Your task to perform on an android device: Empty the shopping cart on newegg. Add "logitech g502" to the cart on newegg Image 0: 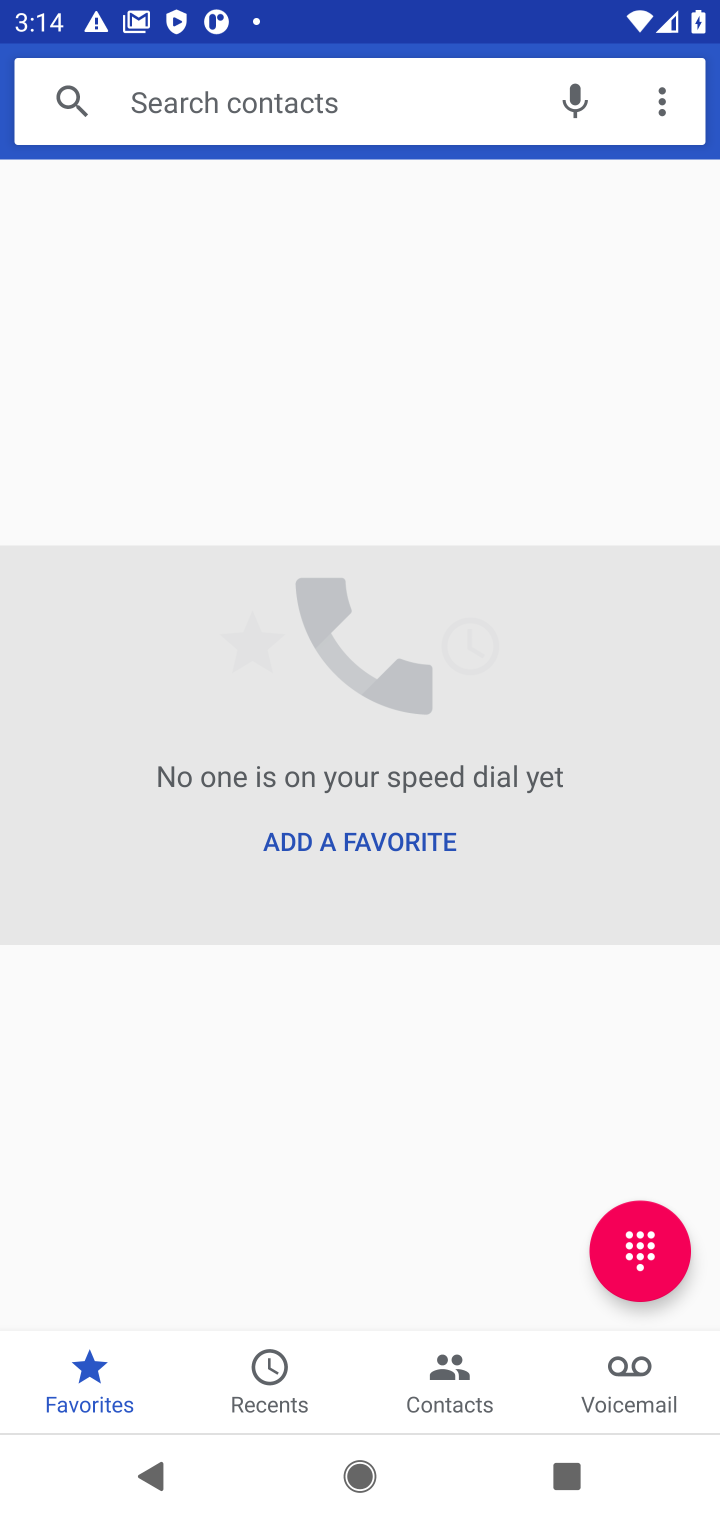
Step 0: press home button
Your task to perform on an android device: Empty the shopping cart on newegg. Add "logitech g502" to the cart on newegg Image 1: 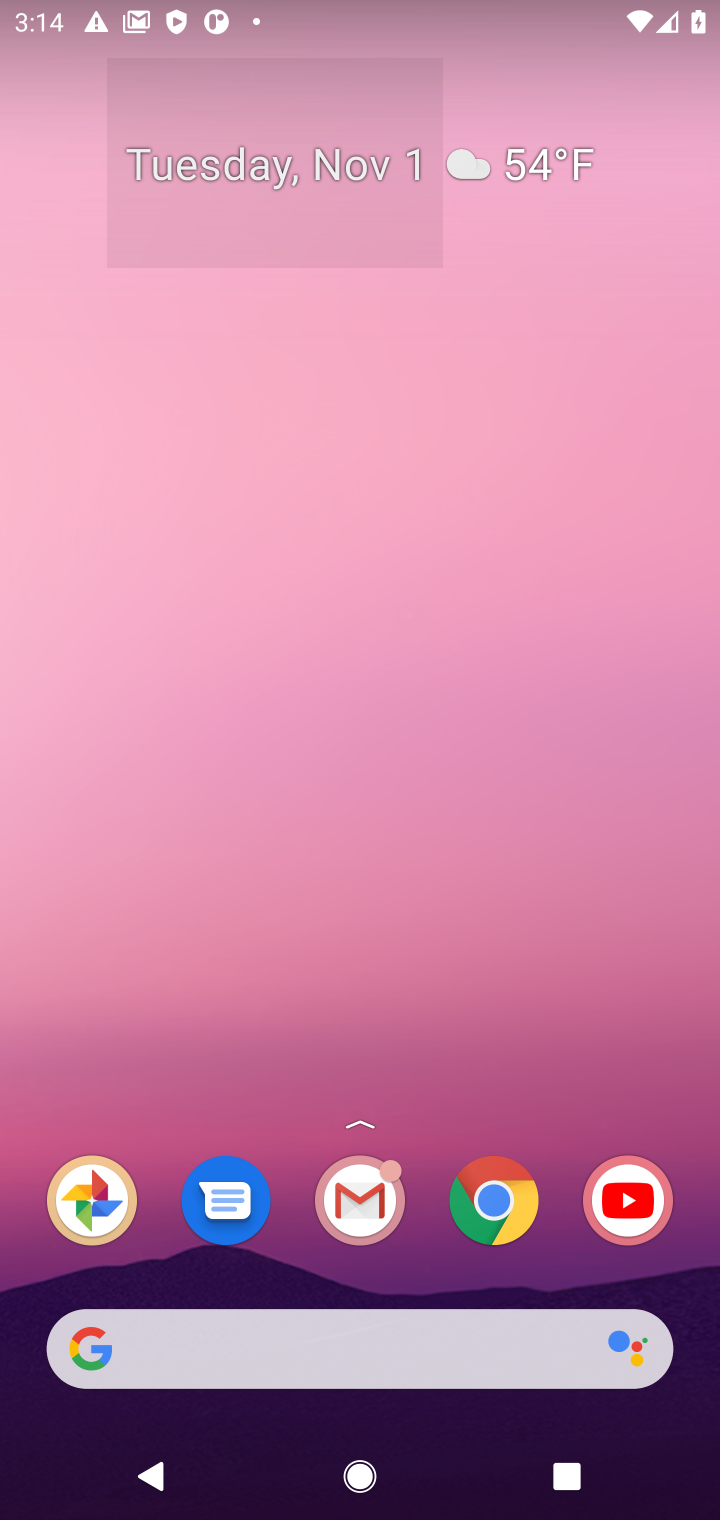
Step 1: click (94, 1342)
Your task to perform on an android device: Empty the shopping cart on newegg. Add "logitech g502" to the cart on newegg Image 2: 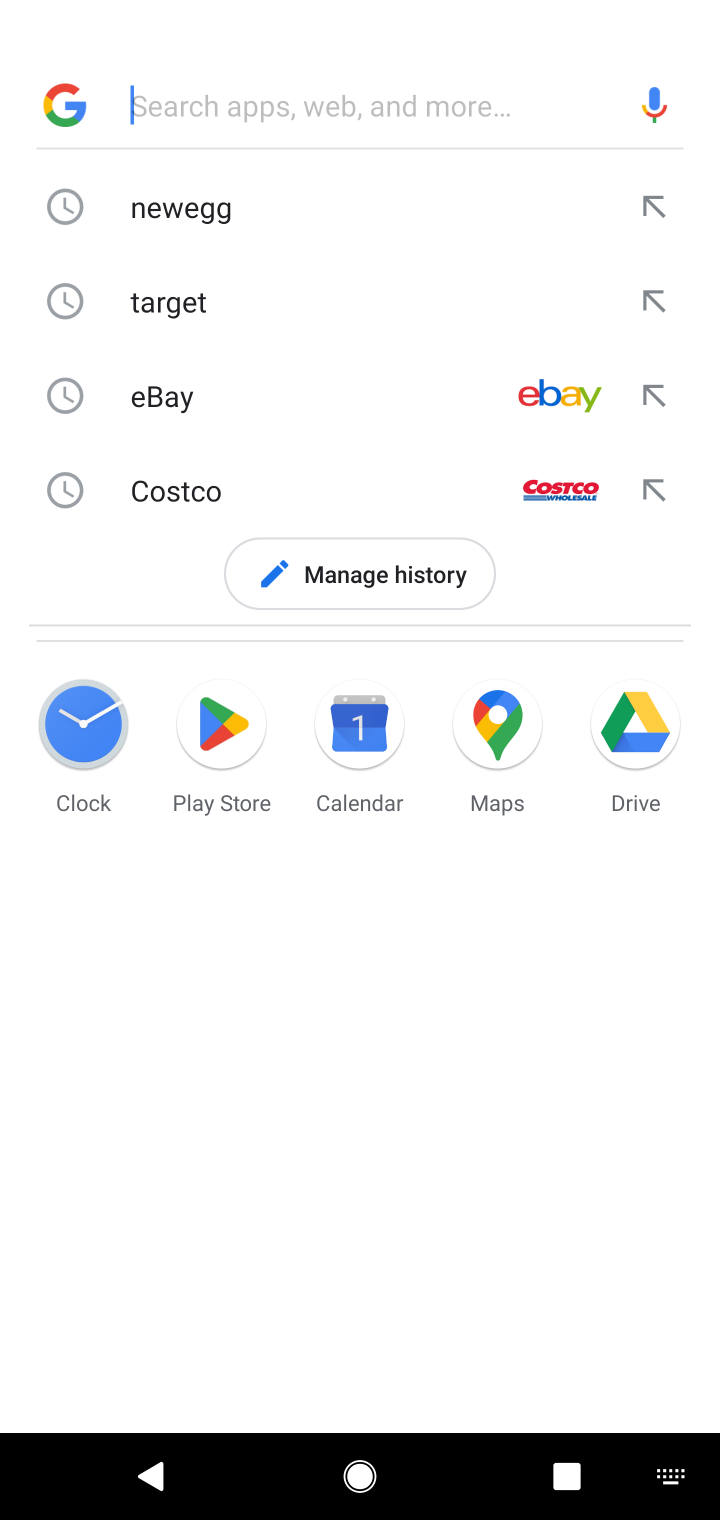
Step 2: click (152, 216)
Your task to perform on an android device: Empty the shopping cart on newegg. Add "logitech g502" to the cart on newegg Image 3: 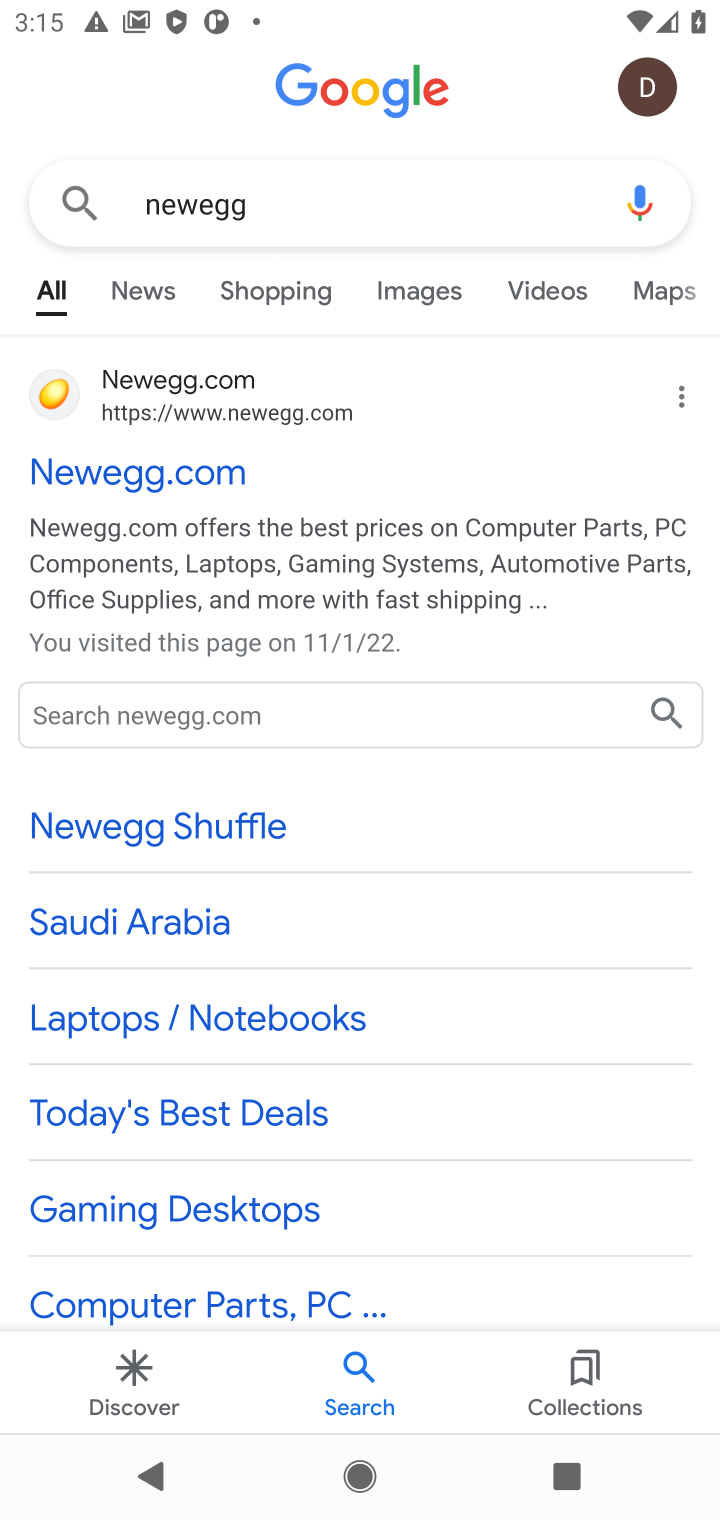
Step 3: click (113, 476)
Your task to perform on an android device: Empty the shopping cart on newegg. Add "logitech g502" to the cart on newegg Image 4: 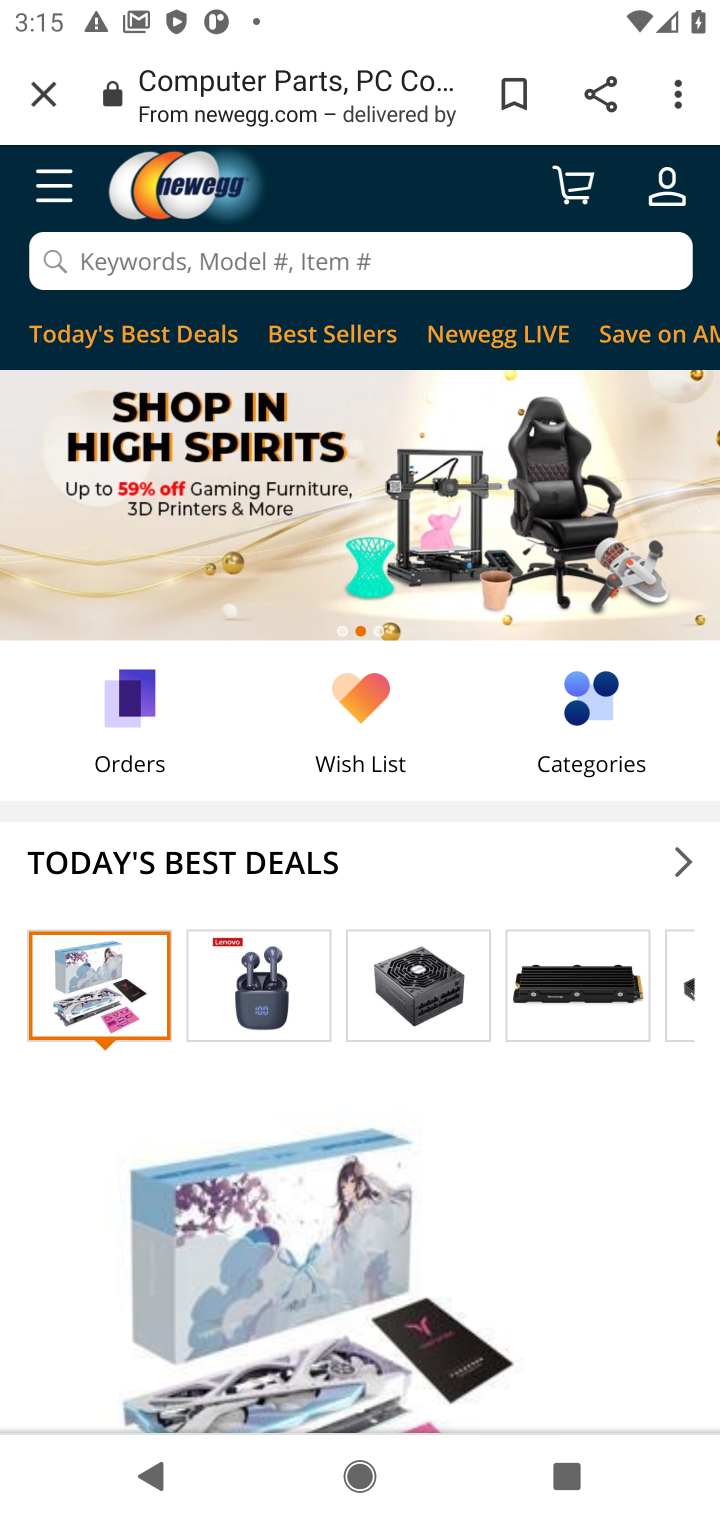
Step 4: click (409, 253)
Your task to perform on an android device: Empty the shopping cart on newegg. Add "logitech g502" to the cart on newegg Image 5: 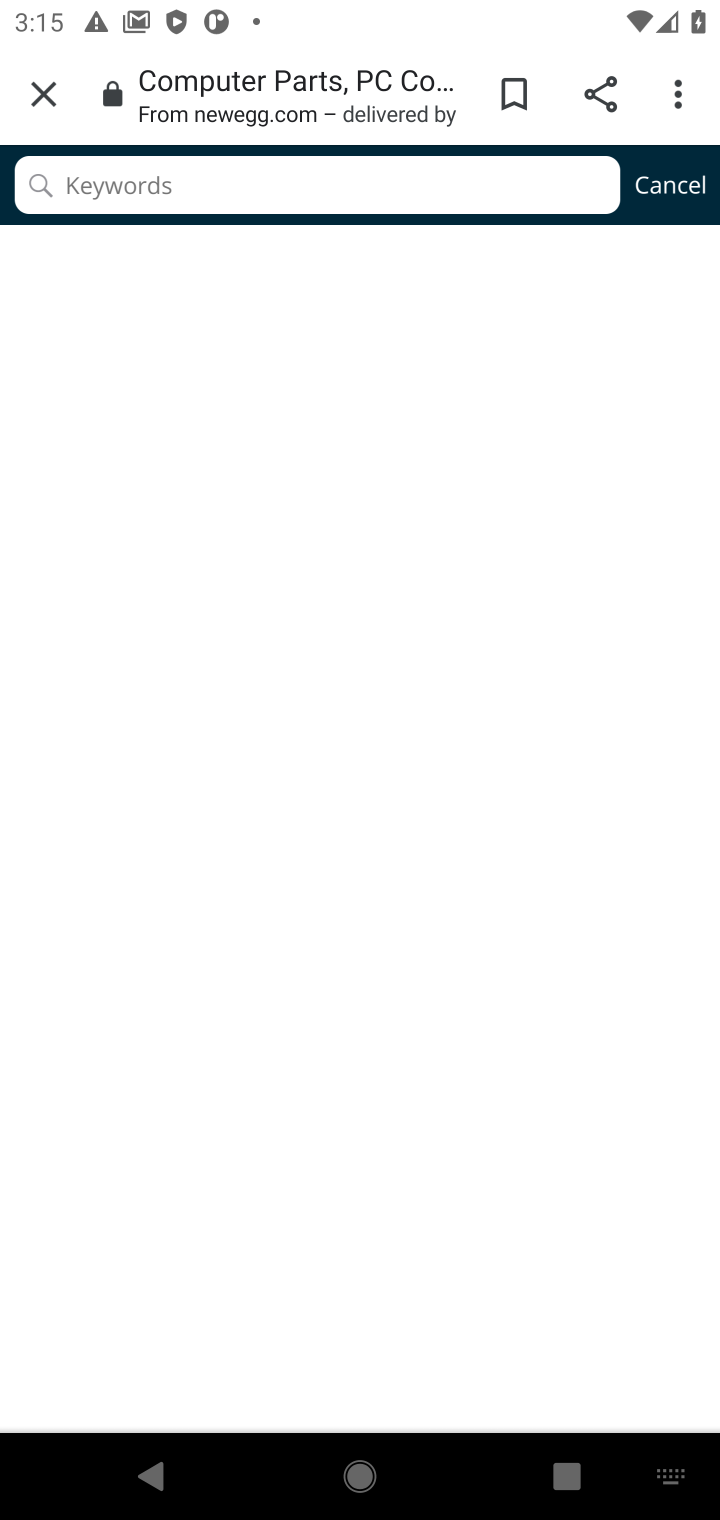
Step 5: type "logitech g502"
Your task to perform on an android device: Empty the shopping cart on newegg. Add "logitech g502" to the cart on newegg Image 6: 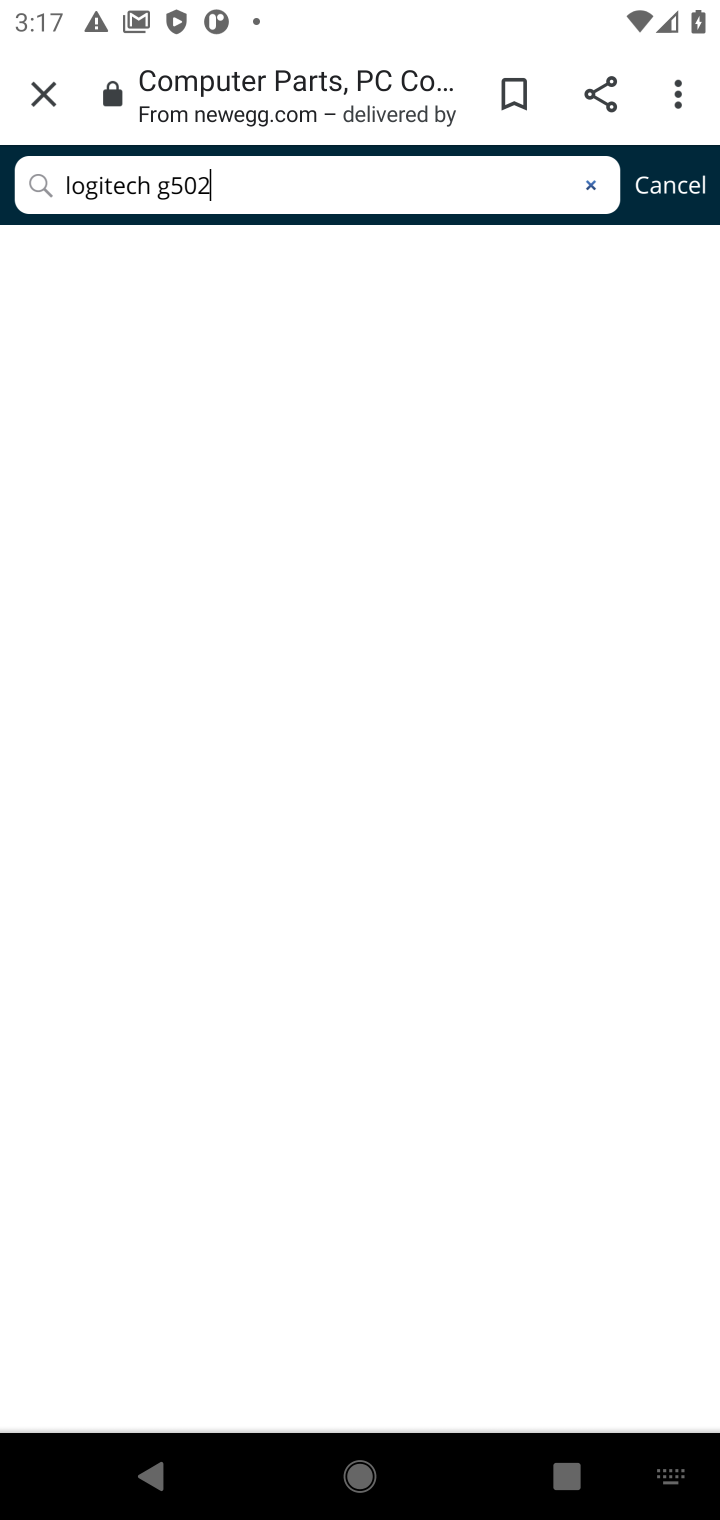
Step 6: task complete